Your task to perform on an android device: turn off data saver in the chrome app Image 0: 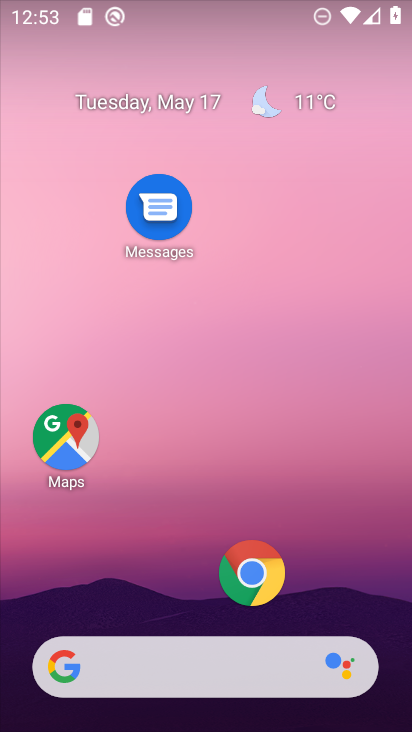
Step 0: click (245, 568)
Your task to perform on an android device: turn off data saver in the chrome app Image 1: 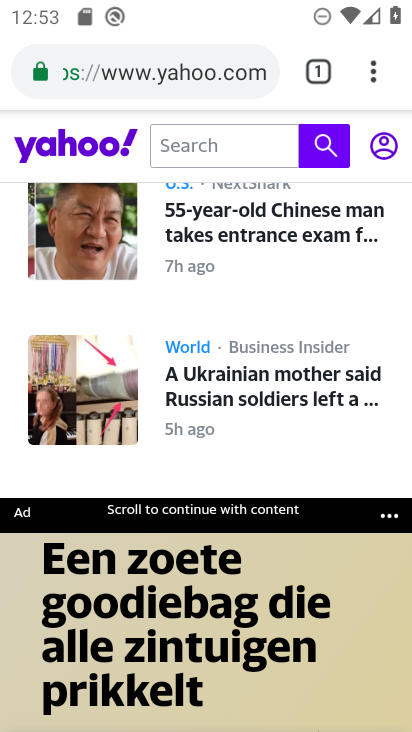
Step 1: drag from (219, 473) to (211, 277)
Your task to perform on an android device: turn off data saver in the chrome app Image 2: 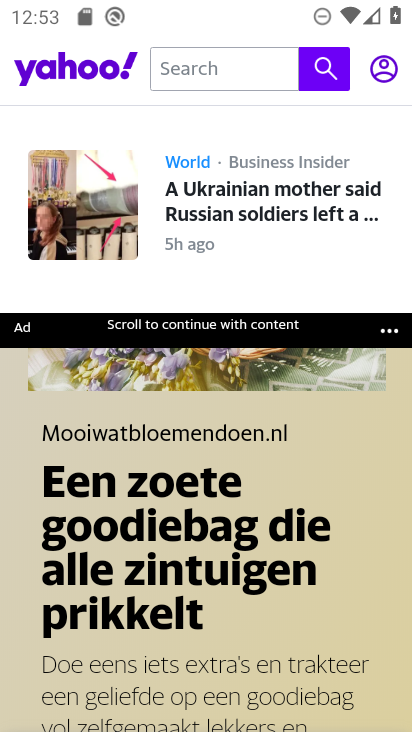
Step 2: drag from (345, 147) to (295, 530)
Your task to perform on an android device: turn off data saver in the chrome app Image 3: 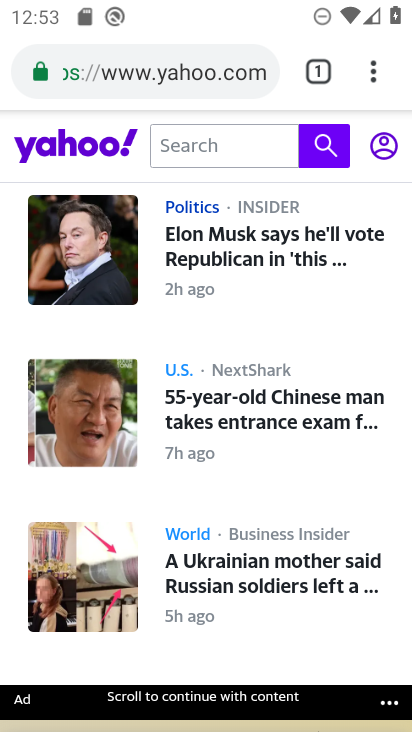
Step 3: click (374, 67)
Your task to perform on an android device: turn off data saver in the chrome app Image 4: 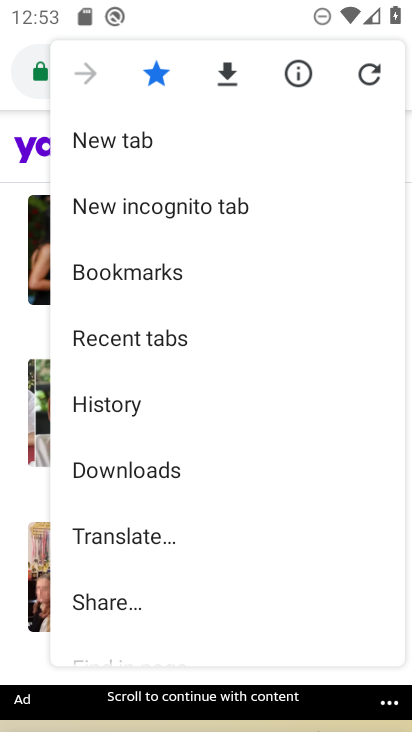
Step 4: drag from (187, 592) to (210, 168)
Your task to perform on an android device: turn off data saver in the chrome app Image 5: 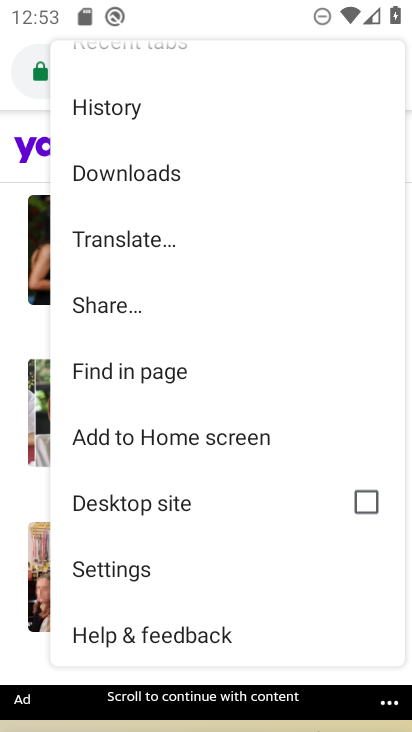
Step 5: click (164, 565)
Your task to perform on an android device: turn off data saver in the chrome app Image 6: 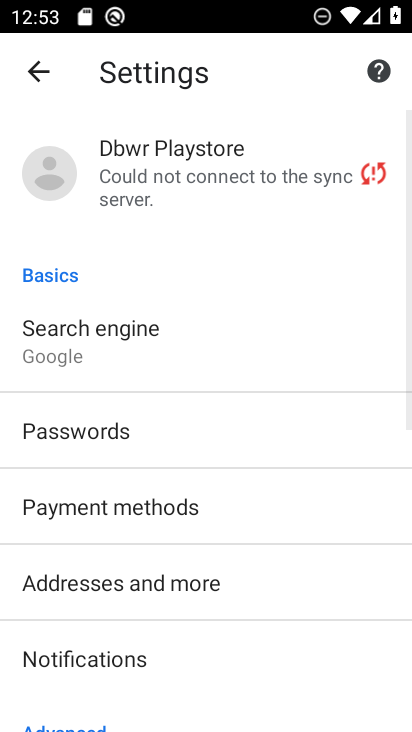
Step 6: drag from (235, 653) to (257, 232)
Your task to perform on an android device: turn off data saver in the chrome app Image 7: 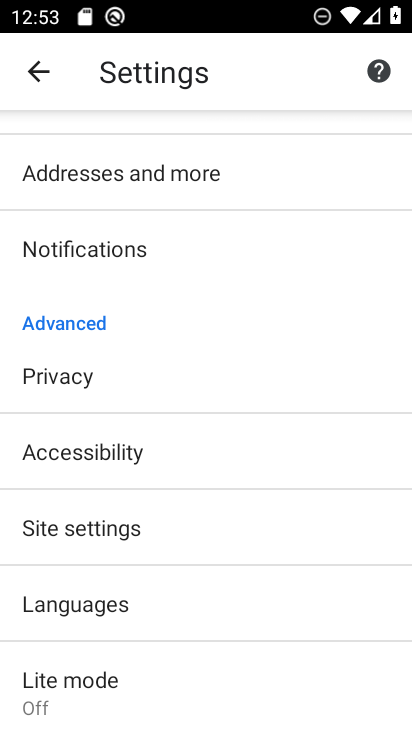
Step 7: click (140, 698)
Your task to perform on an android device: turn off data saver in the chrome app Image 8: 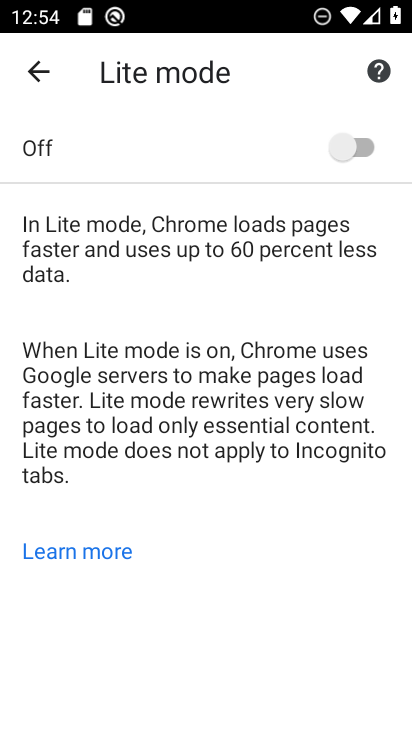
Step 8: click (359, 144)
Your task to perform on an android device: turn off data saver in the chrome app Image 9: 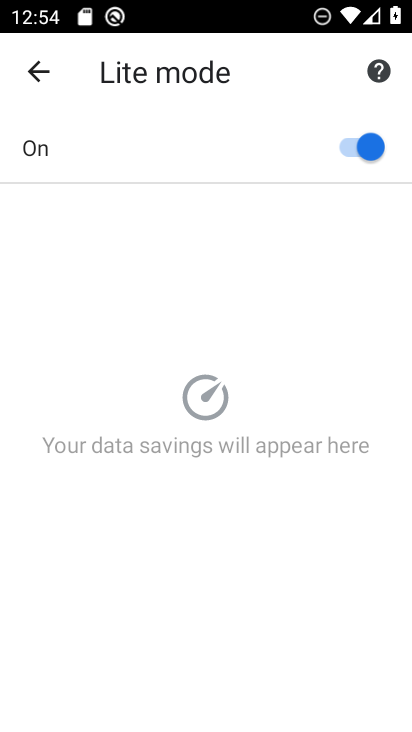
Step 9: task complete